Your task to perform on an android device: Open Chrome and go to the settings page Image 0: 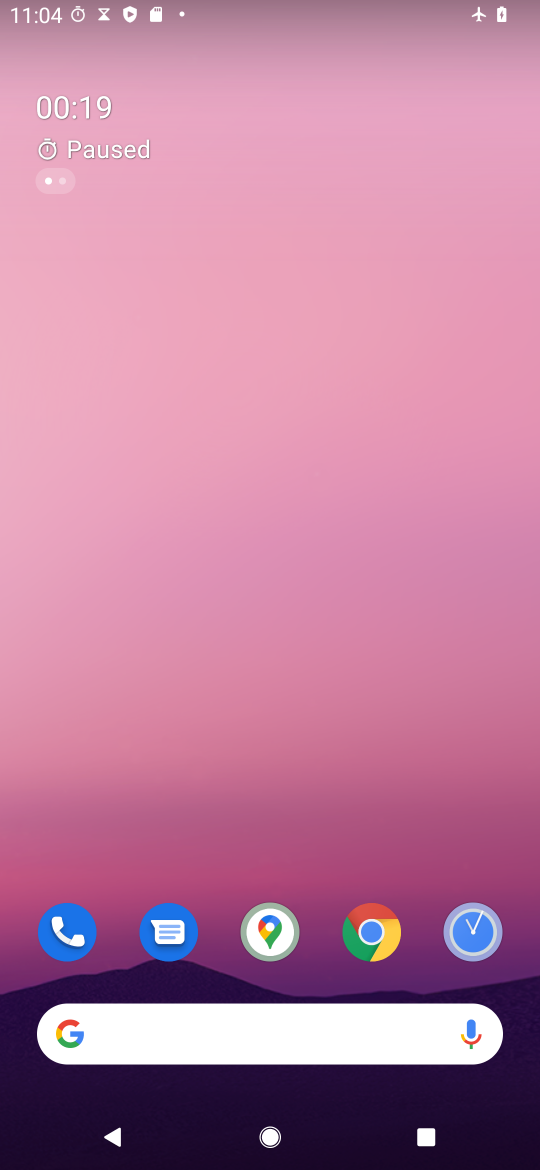
Step 0: click (372, 931)
Your task to perform on an android device: Open Chrome and go to the settings page Image 1: 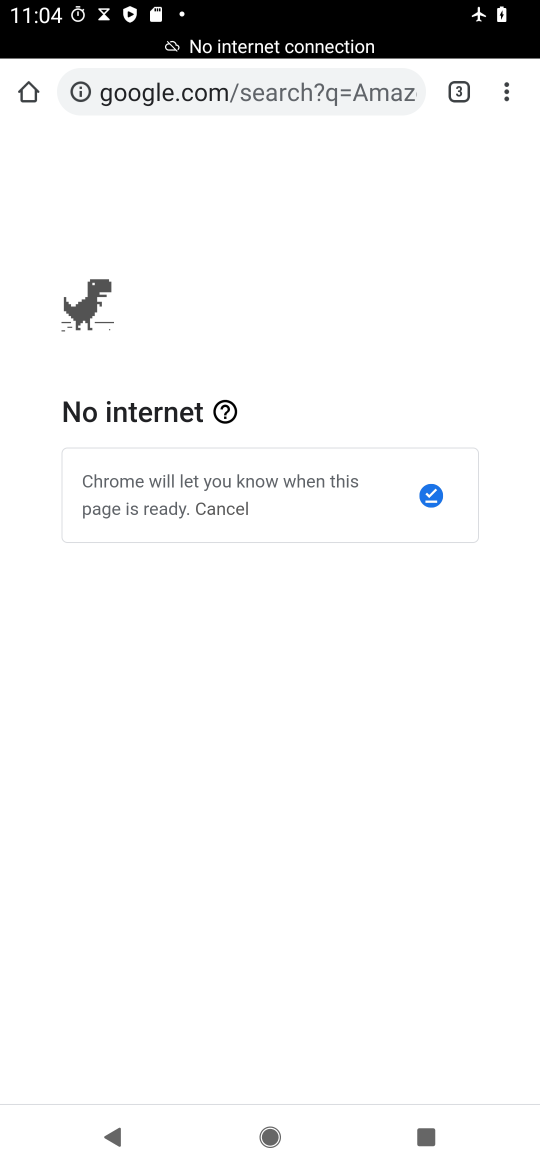
Step 1: click (508, 93)
Your task to perform on an android device: Open Chrome and go to the settings page Image 2: 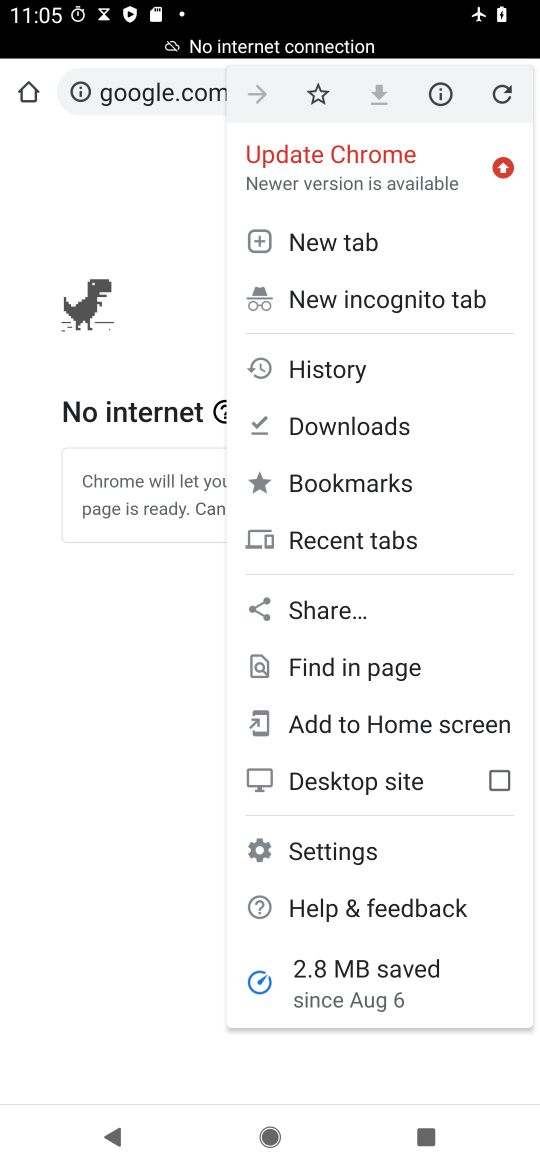
Step 2: click (327, 850)
Your task to perform on an android device: Open Chrome and go to the settings page Image 3: 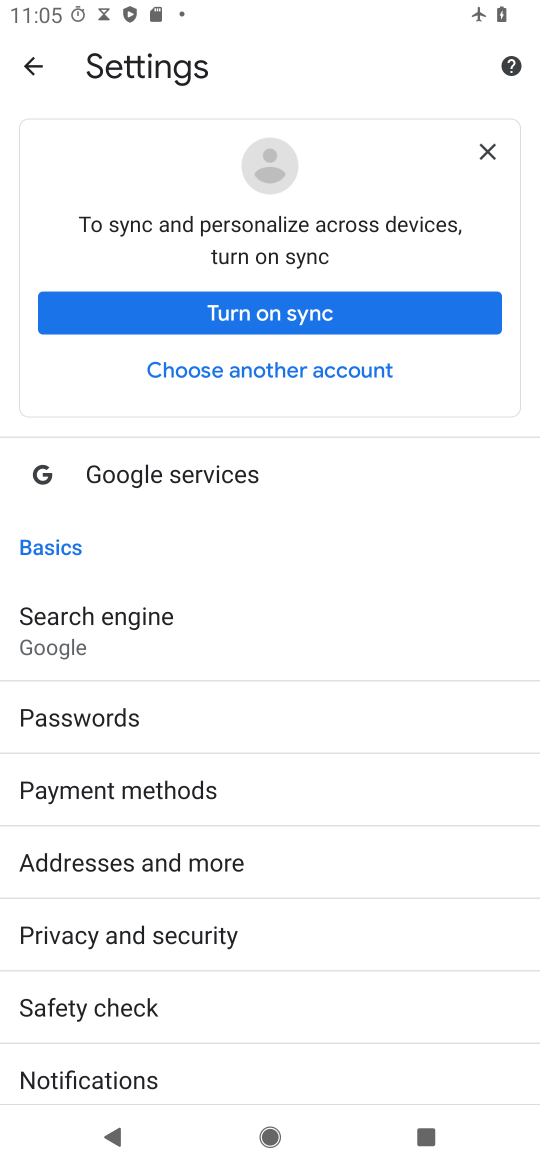
Step 3: task complete